Your task to perform on an android device: toggle data saver in the chrome app Image 0: 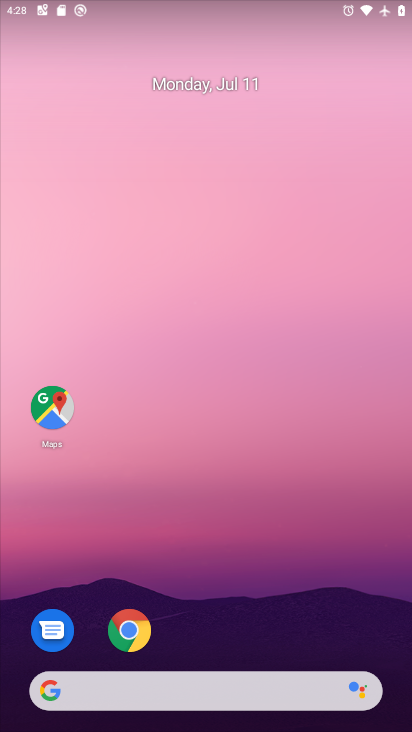
Step 0: click (146, 630)
Your task to perform on an android device: toggle data saver in the chrome app Image 1: 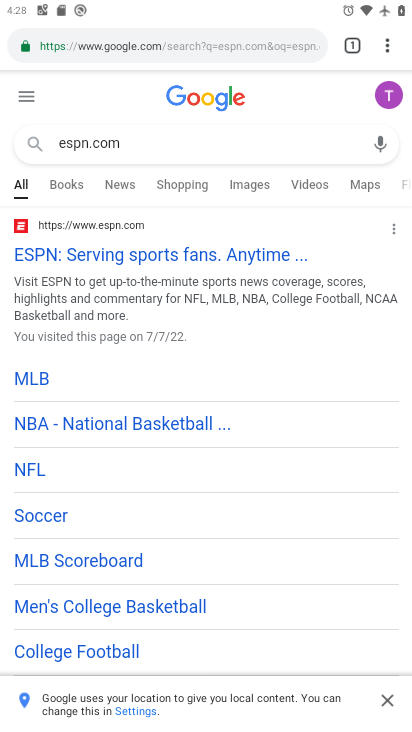
Step 1: click (389, 39)
Your task to perform on an android device: toggle data saver in the chrome app Image 2: 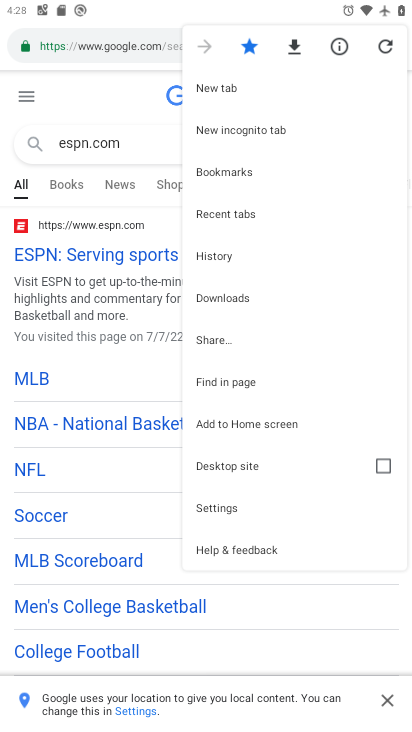
Step 2: click (252, 497)
Your task to perform on an android device: toggle data saver in the chrome app Image 3: 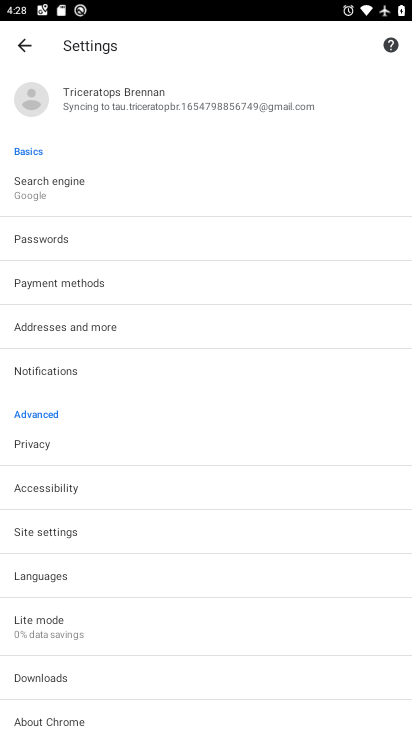
Step 3: click (109, 615)
Your task to perform on an android device: toggle data saver in the chrome app Image 4: 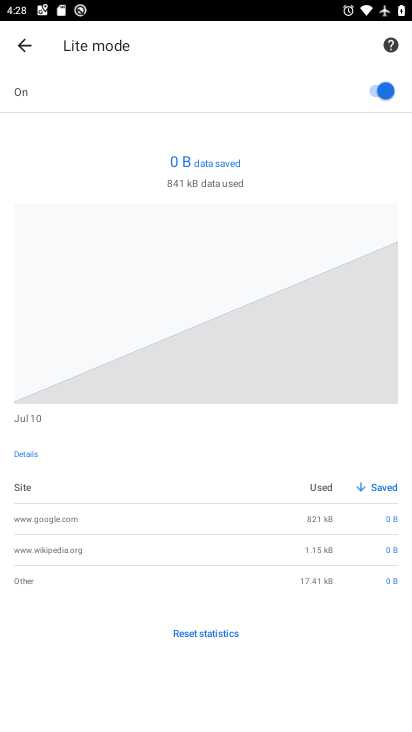
Step 4: click (371, 97)
Your task to perform on an android device: toggle data saver in the chrome app Image 5: 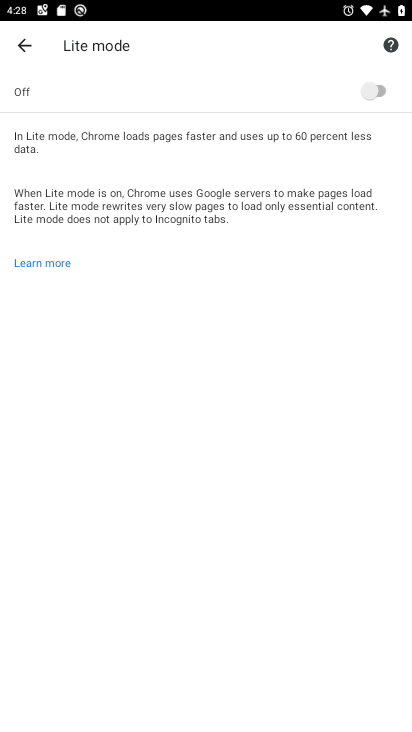
Step 5: task complete